Your task to perform on an android device: Open Chrome and go to the settings page Image 0: 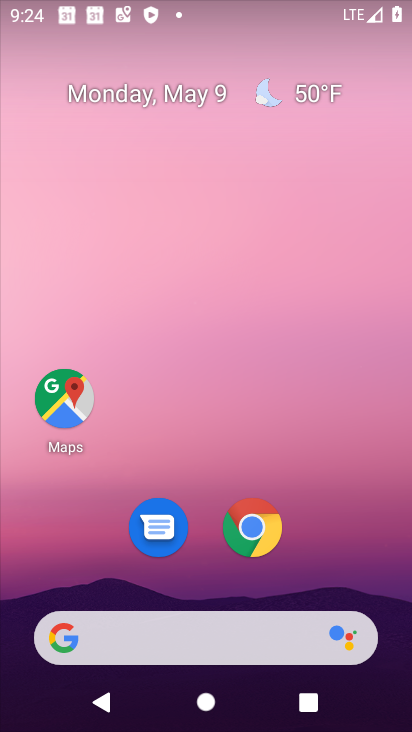
Step 0: click (259, 517)
Your task to perform on an android device: Open Chrome and go to the settings page Image 1: 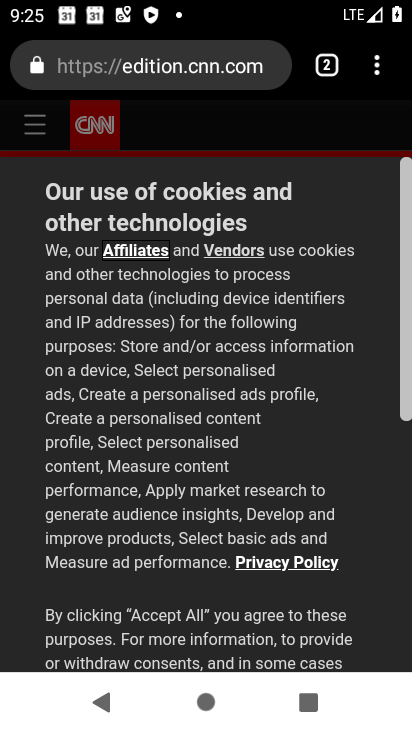
Step 1: click (383, 57)
Your task to perform on an android device: Open Chrome and go to the settings page Image 2: 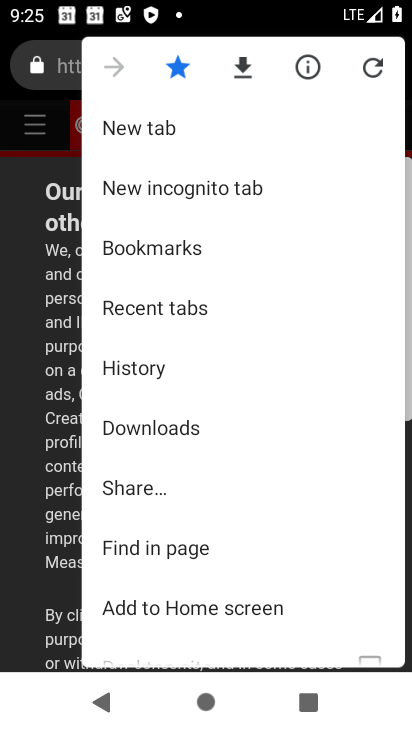
Step 2: drag from (206, 559) to (212, 190)
Your task to perform on an android device: Open Chrome and go to the settings page Image 3: 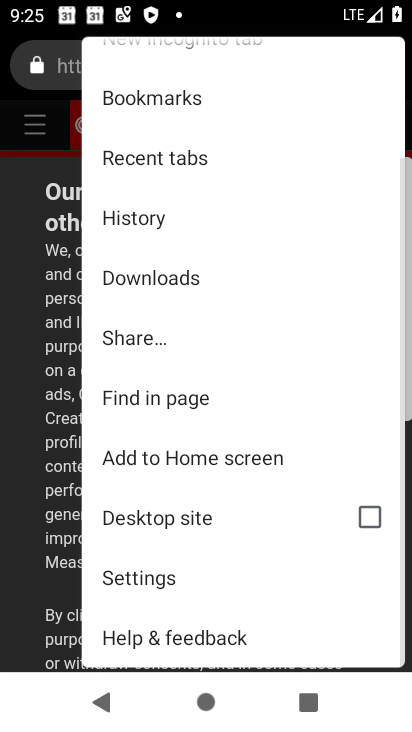
Step 3: click (136, 574)
Your task to perform on an android device: Open Chrome and go to the settings page Image 4: 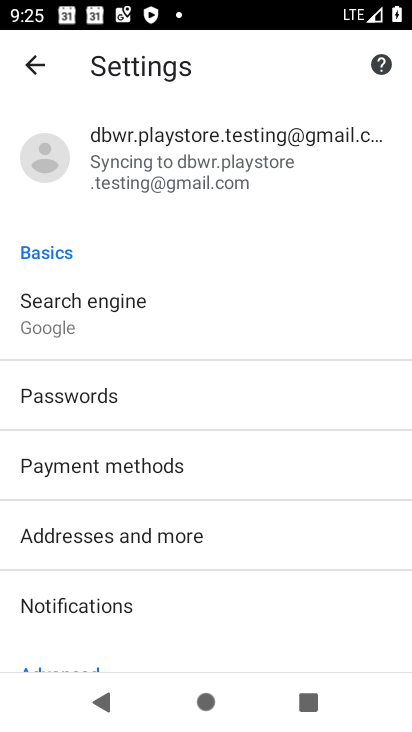
Step 4: task complete